Your task to perform on an android device: Go to Android settings Image 0: 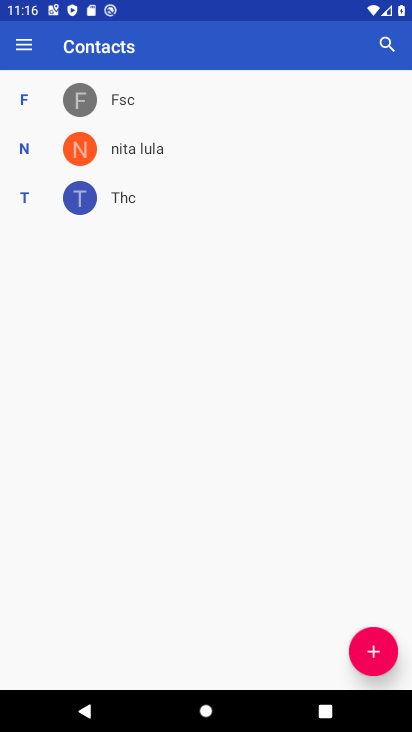
Step 0: press home button
Your task to perform on an android device: Go to Android settings Image 1: 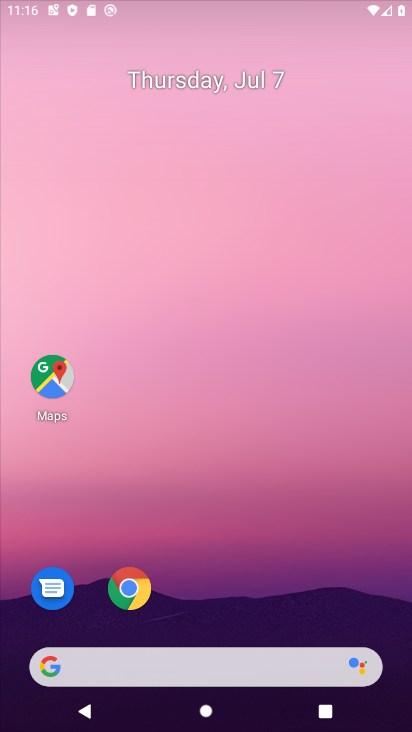
Step 1: drag from (204, 615) to (242, 96)
Your task to perform on an android device: Go to Android settings Image 2: 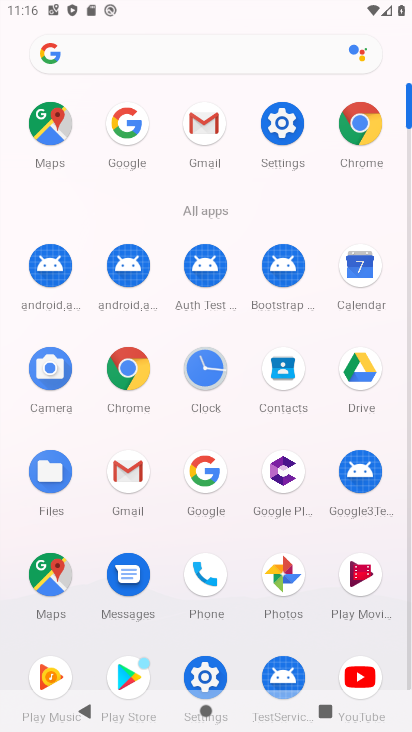
Step 2: click (284, 126)
Your task to perform on an android device: Go to Android settings Image 3: 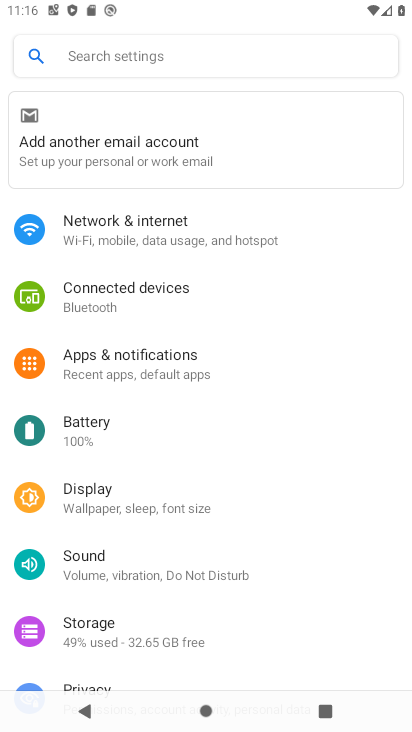
Step 3: task complete